Your task to perform on an android device: See recent photos Image 0: 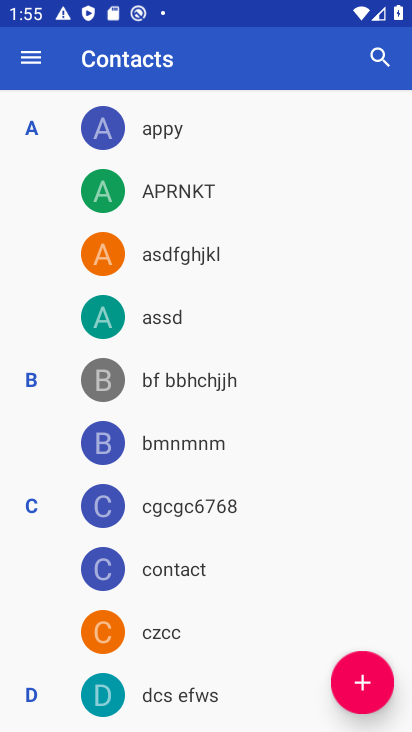
Step 0: press home button
Your task to perform on an android device: See recent photos Image 1: 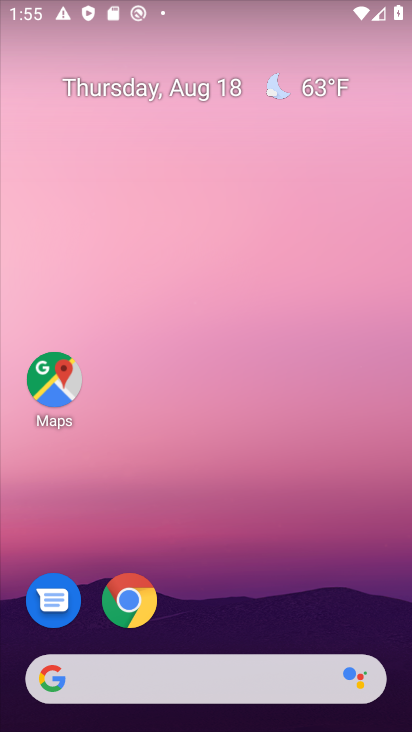
Step 1: drag from (231, 519) to (190, 147)
Your task to perform on an android device: See recent photos Image 2: 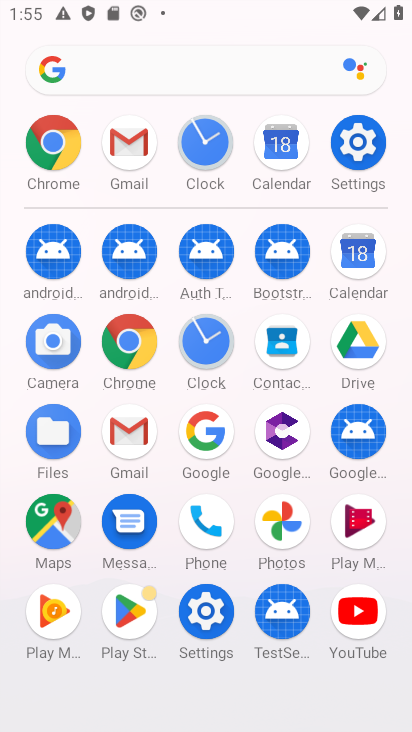
Step 2: click (285, 518)
Your task to perform on an android device: See recent photos Image 3: 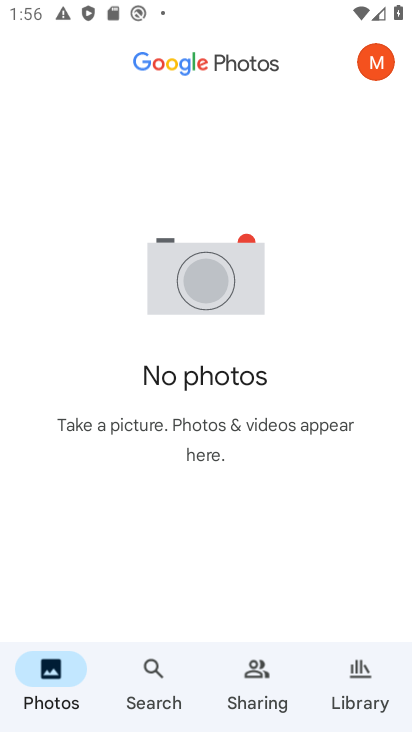
Step 3: task complete